Your task to perform on an android device: Search for Mexican restaurants on Maps Image 0: 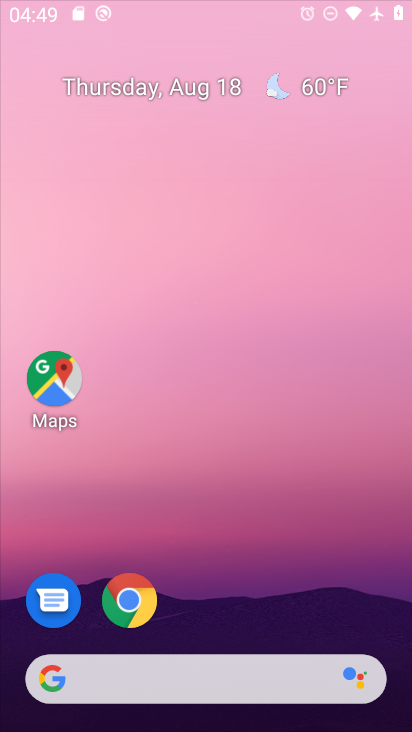
Step 0: press home button
Your task to perform on an android device: Search for Mexican restaurants on Maps Image 1: 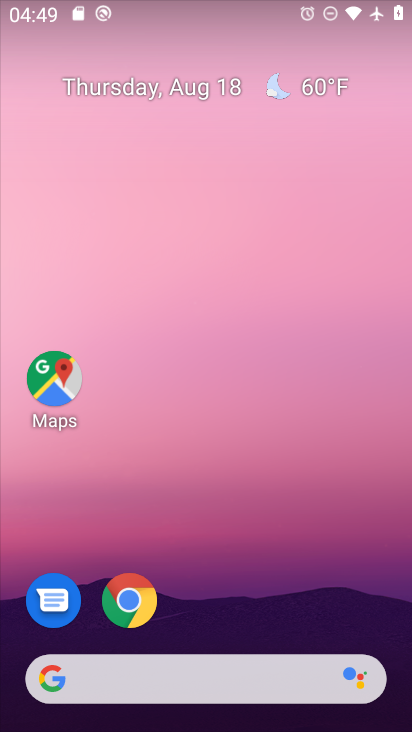
Step 1: click (54, 375)
Your task to perform on an android device: Search for Mexican restaurants on Maps Image 2: 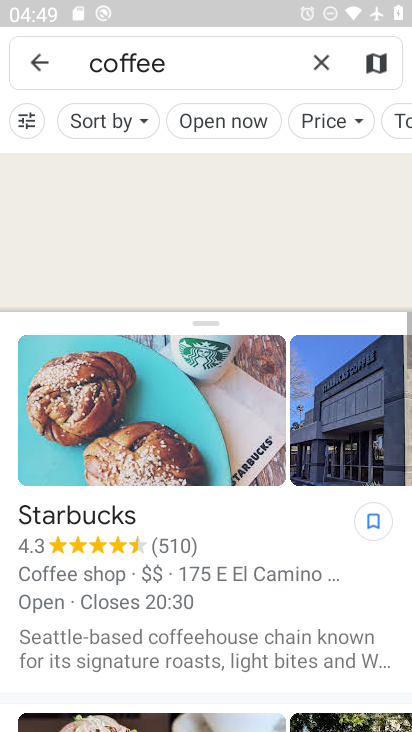
Step 2: press back button
Your task to perform on an android device: Search for Mexican restaurants on Maps Image 3: 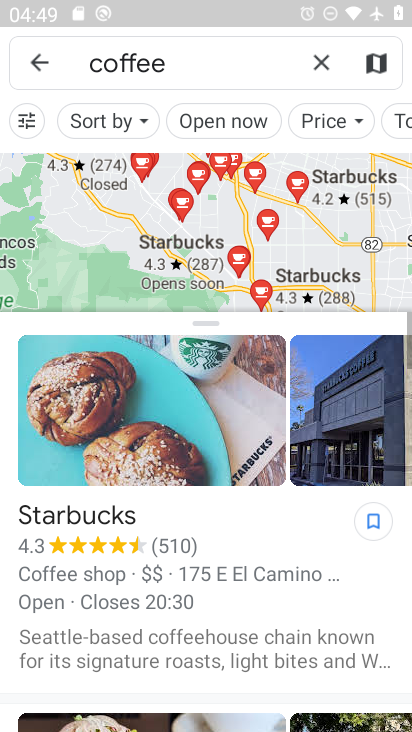
Step 3: press back button
Your task to perform on an android device: Search for Mexican restaurants on Maps Image 4: 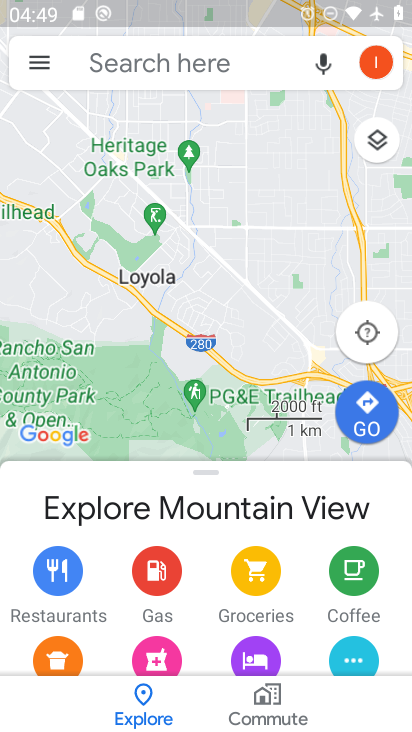
Step 4: click (163, 66)
Your task to perform on an android device: Search for Mexican restaurants on Maps Image 5: 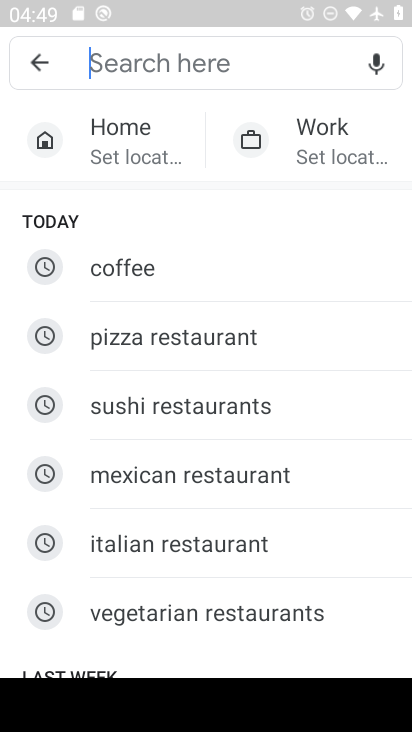
Step 5: click (187, 483)
Your task to perform on an android device: Search for Mexican restaurants on Maps Image 6: 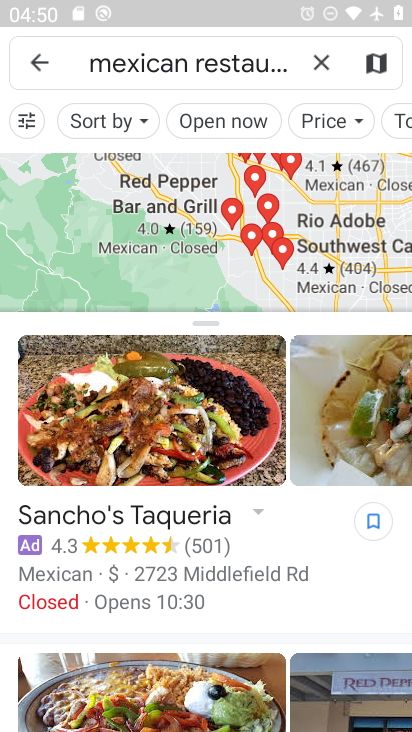
Step 6: task complete